Your task to perform on an android device: allow notifications from all sites in the chrome app Image 0: 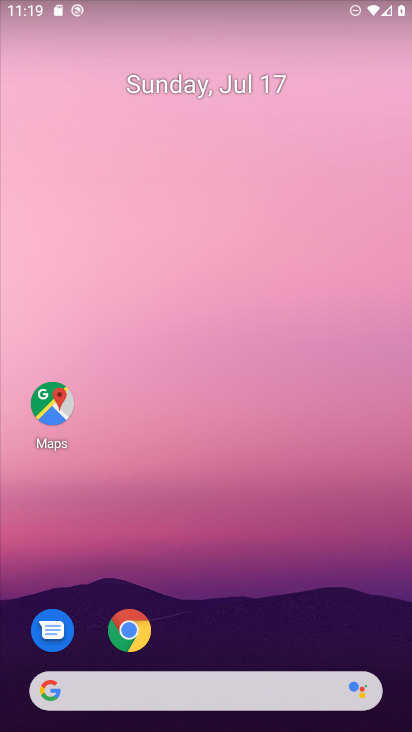
Step 0: click (252, 75)
Your task to perform on an android device: allow notifications from all sites in the chrome app Image 1: 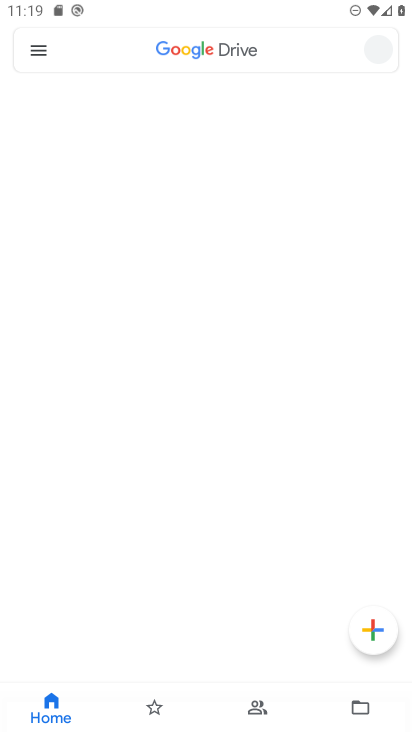
Step 1: press home button
Your task to perform on an android device: allow notifications from all sites in the chrome app Image 2: 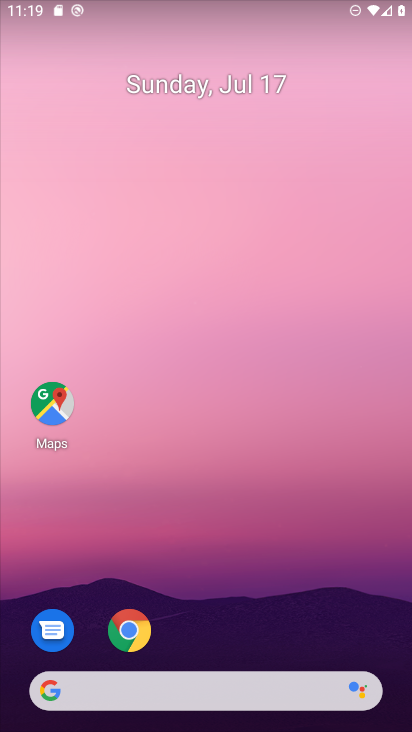
Step 2: click (118, 634)
Your task to perform on an android device: allow notifications from all sites in the chrome app Image 3: 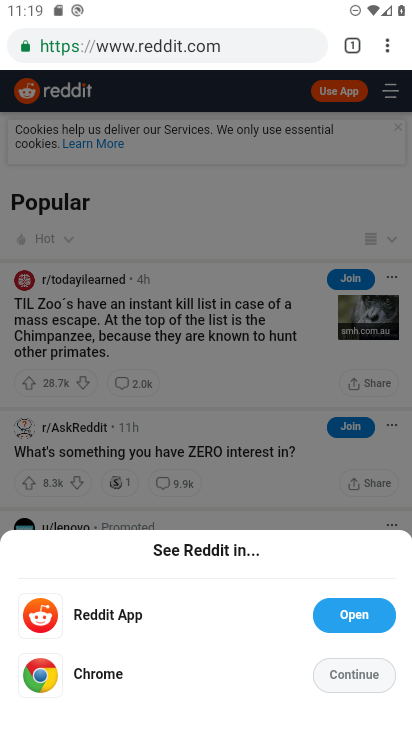
Step 3: click (346, 669)
Your task to perform on an android device: allow notifications from all sites in the chrome app Image 4: 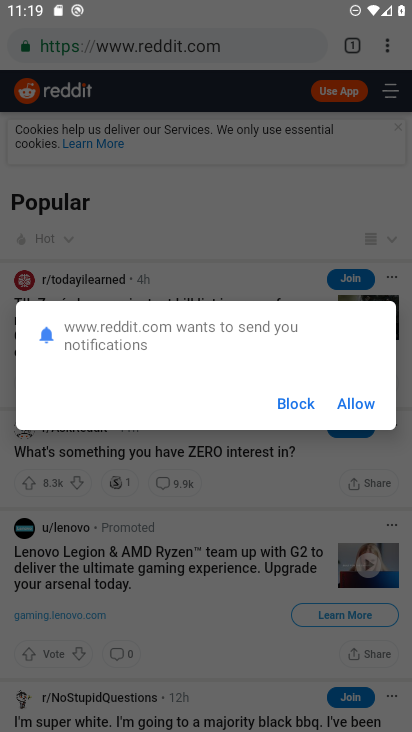
Step 4: click (348, 404)
Your task to perform on an android device: allow notifications from all sites in the chrome app Image 5: 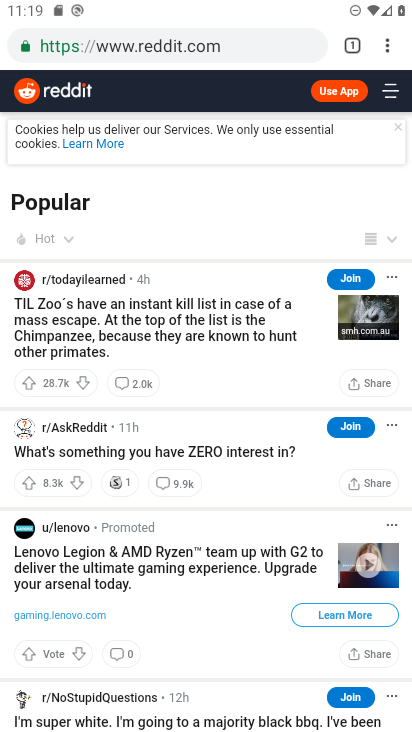
Step 5: click (387, 47)
Your task to perform on an android device: allow notifications from all sites in the chrome app Image 6: 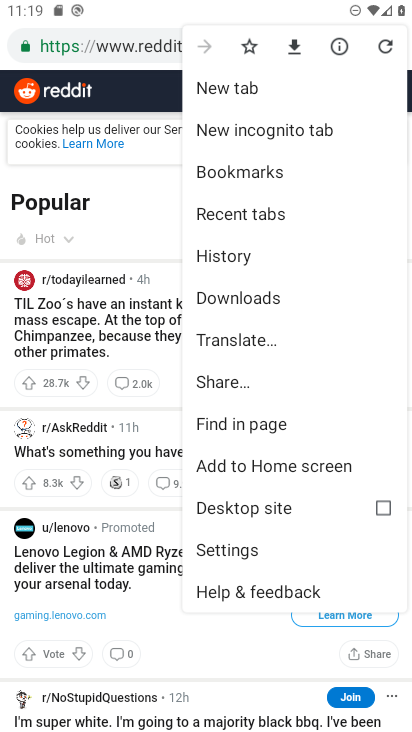
Step 6: click (249, 549)
Your task to perform on an android device: allow notifications from all sites in the chrome app Image 7: 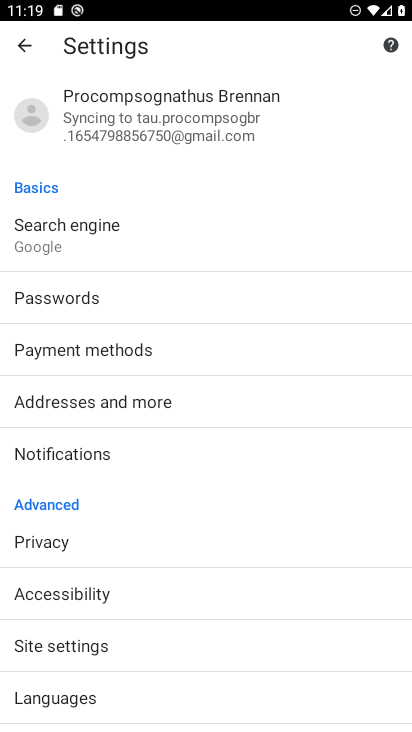
Step 7: click (81, 649)
Your task to perform on an android device: allow notifications from all sites in the chrome app Image 8: 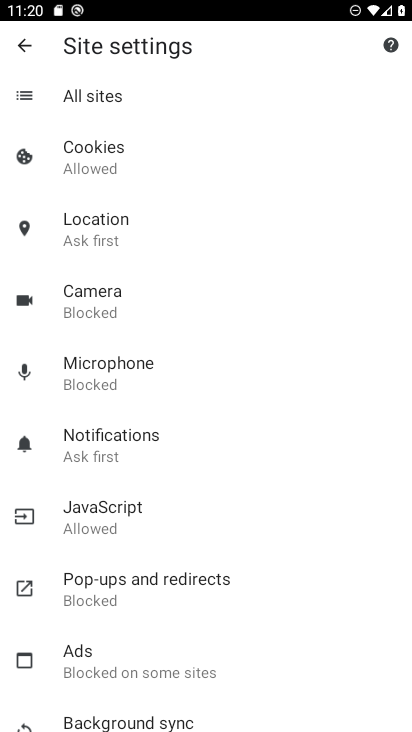
Step 8: click (105, 99)
Your task to perform on an android device: allow notifications from all sites in the chrome app Image 9: 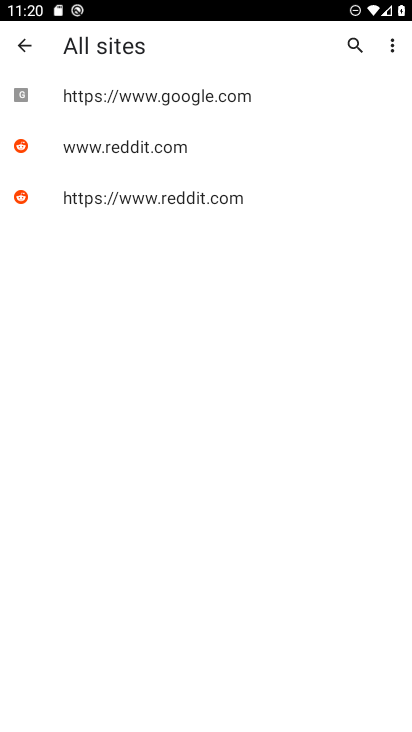
Step 9: click (126, 99)
Your task to perform on an android device: allow notifications from all sites in the chrome app Image 10: 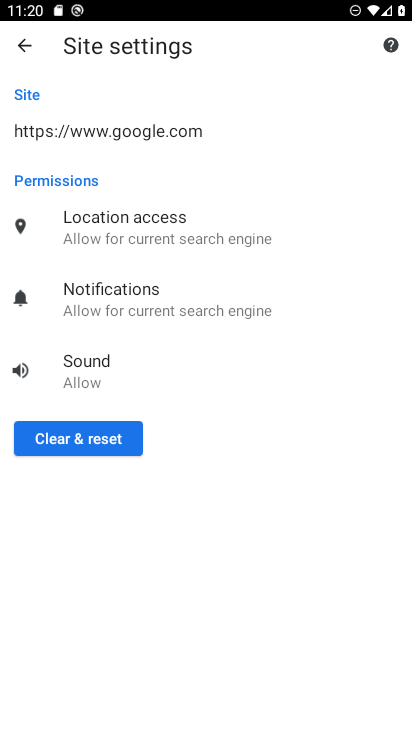
Step 10: click (94, 280)
Your task to perform on an android device: allow notifications from all sites in the chrome app Image 11: 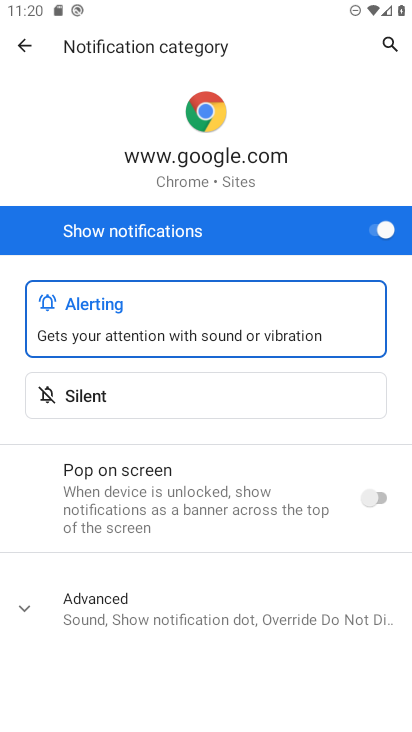
Step 11: task complete